Your task to perform on an android device: Search for vegetarian restaurants on Maps Image 0: 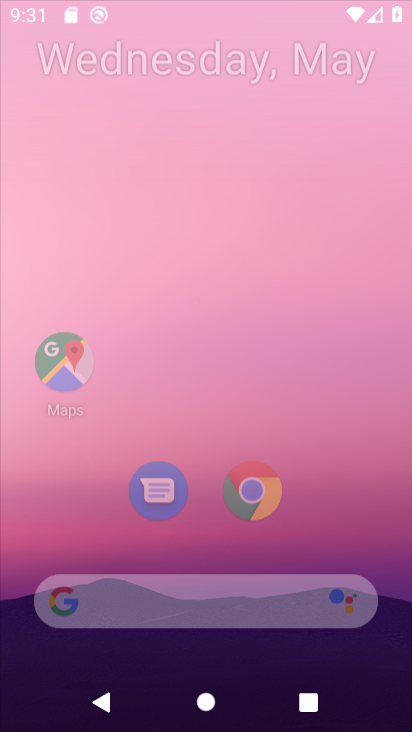
Step 0: click (194, 115)
Your task to perform on an android device: Search for vegetarian restaurants on Maps Image 1: 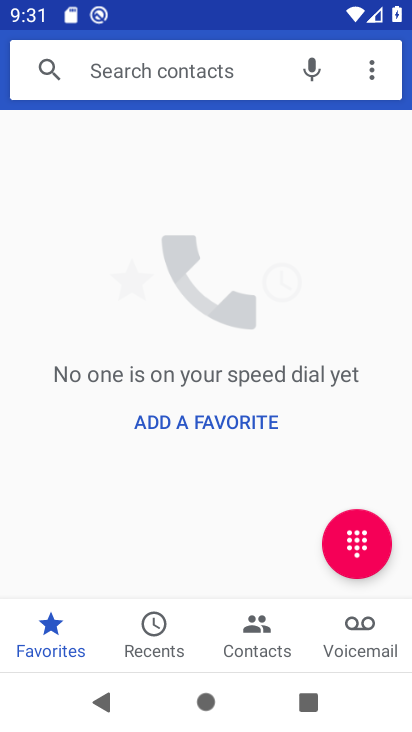
Step 1: press home button
Your task to perform on an android device: Search for vegetarian restaurants on Maps Image 2: 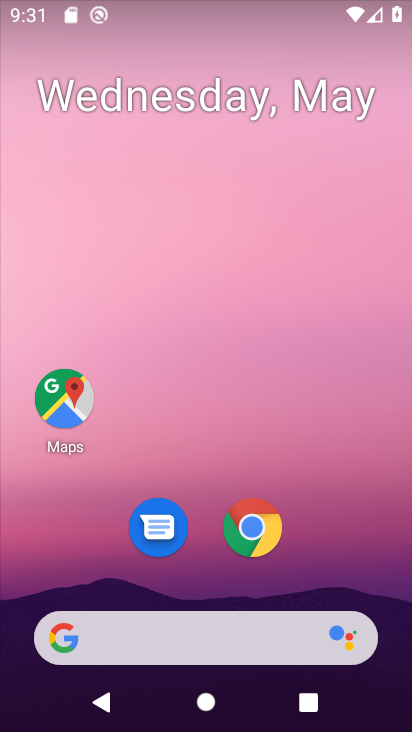
Step 2: click (61, 398)
Your task to perform on an android device: Search for vegetarian restaurants on Maps Image 3: 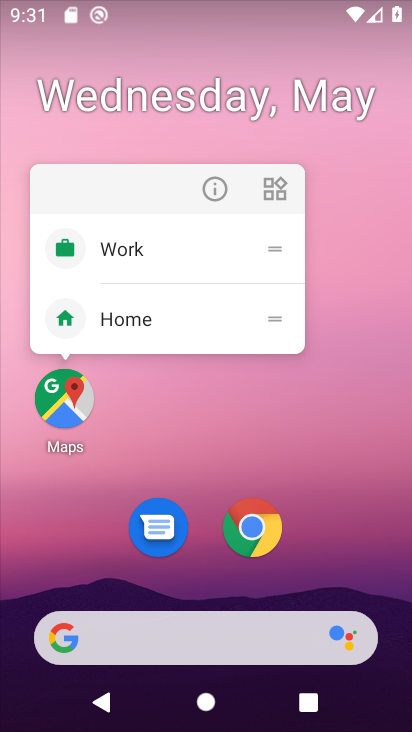
Step 3: click (70, 398)
Your task to perform on an android device: Search for vegetarian restaurants on Maps Image 4: 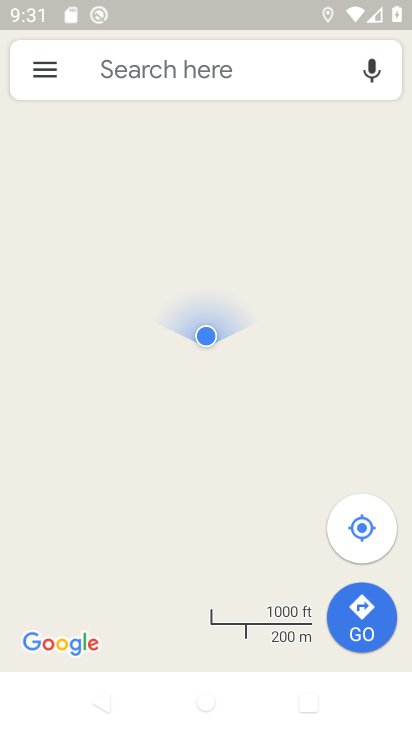
Step 4: click (214, 79)
Your task to perform on an android device: Search for vegetarian restaurants on Maps Image 5: 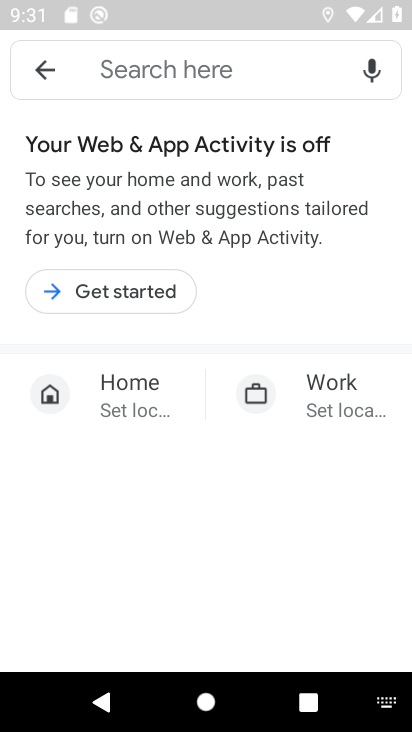
Step 5: click (106, 304)
Your task to perform on an android device: Search for vegetarian restaurants on Maps Image 6: 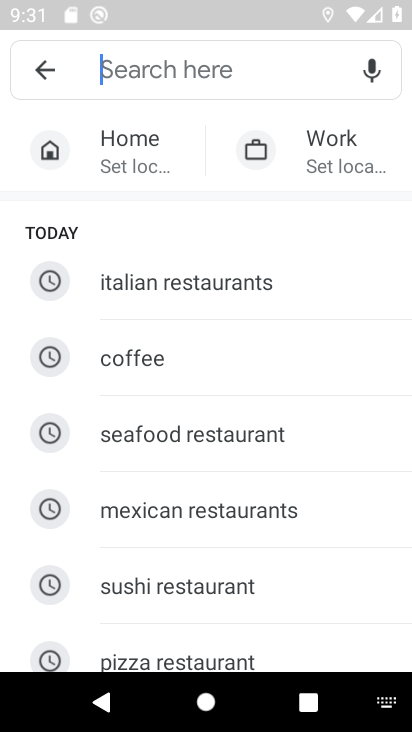
Step 6: drag from (183, 592) to (217, 287)
Your task to perform on an android device: Search for vegetarian restaurants on Maps Image 7: 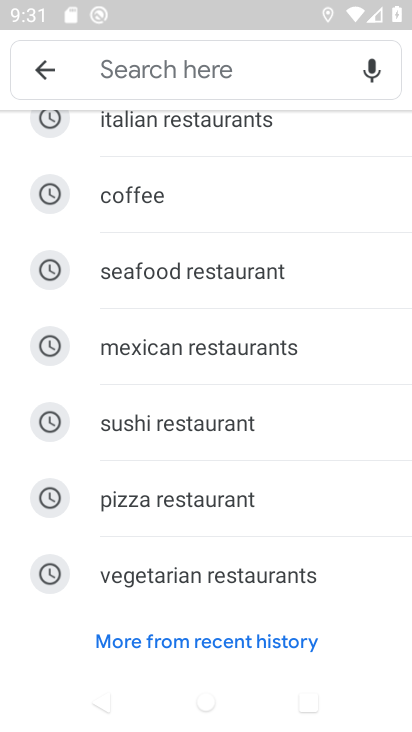
Step 7: click (191, 577)
Your task to perform on an android device: Search for vegetarian restaurants on Maps Image 8: 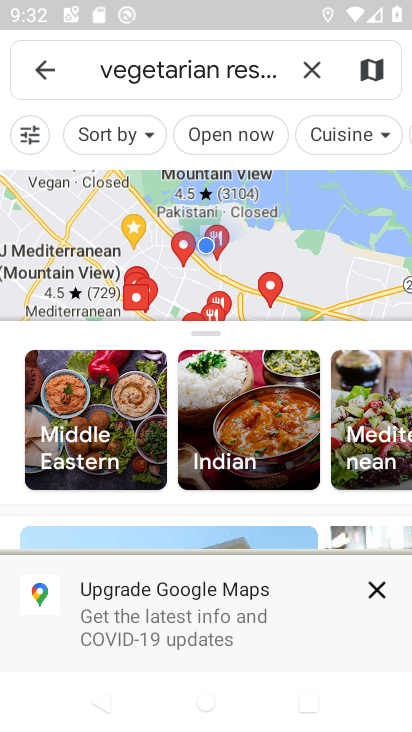
Step 8: task complete